Your task to perform on an android device: Go to internet settings Image 0: 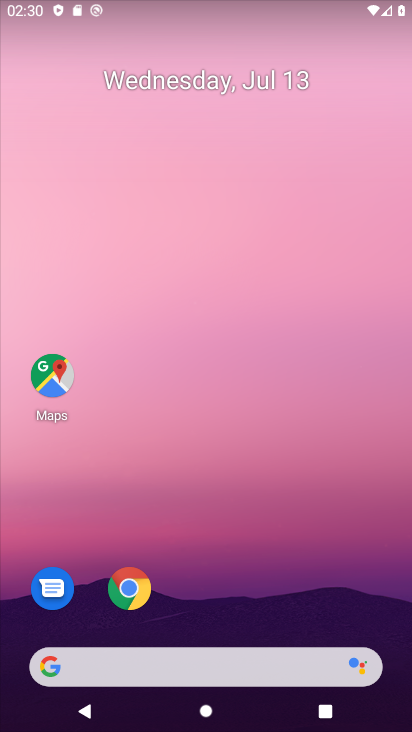
Step 0: drag from (398, 429) to (409, 68)
Your task to perform on an android device: Go to internet settings Image 1: 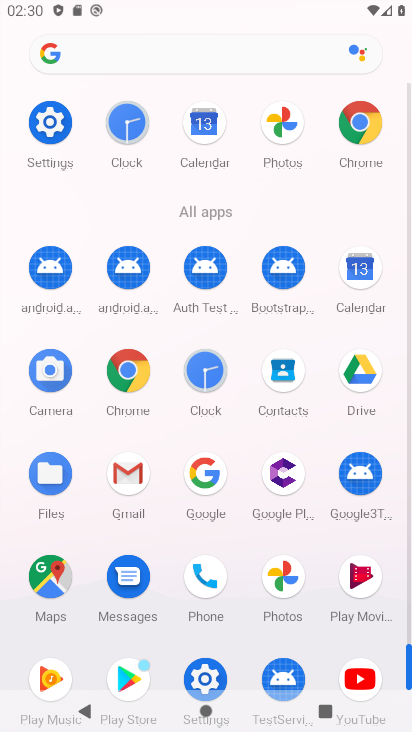
Step 1: click (43, 134)
Your task to perform on an android device: Go to internet settings Image 2: 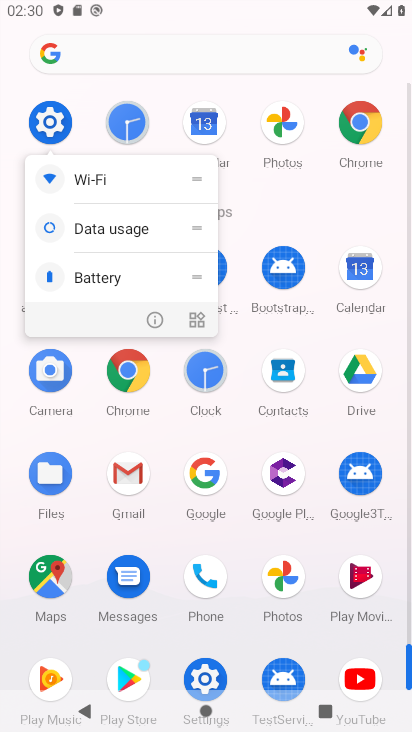
Step 2: click (43, 133)
Your task to perform on an android device: Go to internet settings Image 3: 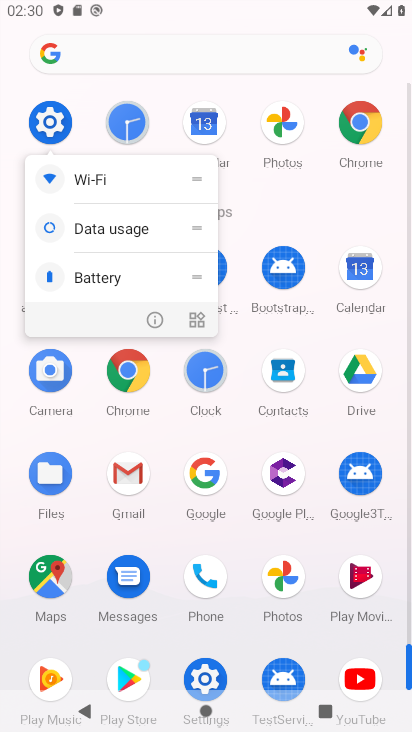
Step 3: click (43, 133)
Your task to perform on an android device: Go to internet settings Image 4: 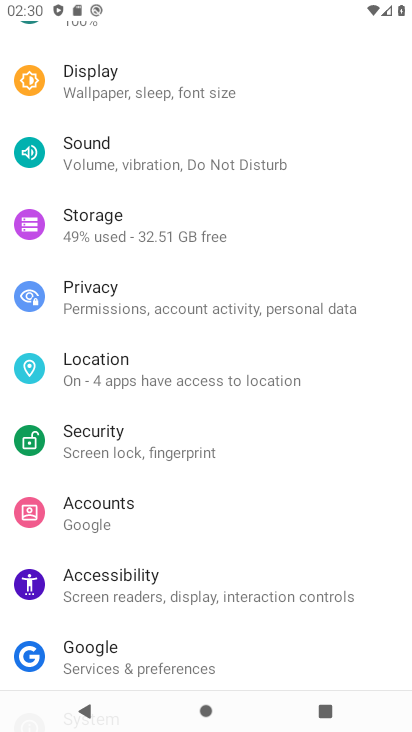
Step 4: drag from (173, 91) to (187, 528)
Your task to perform on an android device: Go to internet settings Image 5: 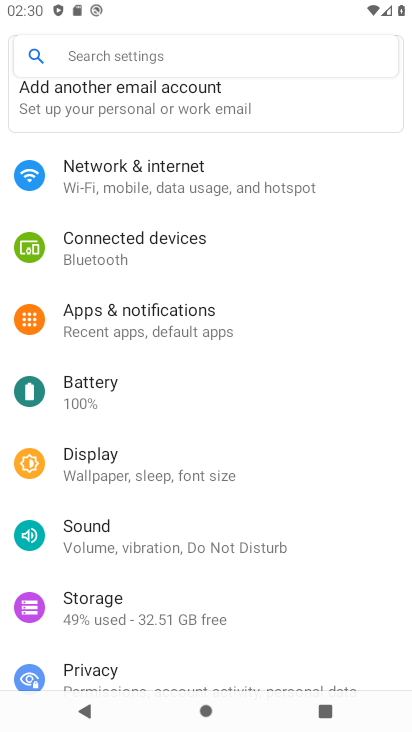
Step 5: click (160, 174)
Your task to perform on an android device: Go to internet settings Image 6: 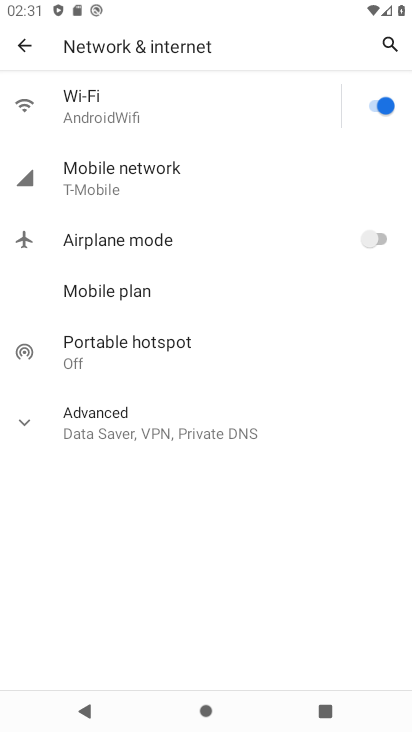
Step 6: task complete